Your task to perform on an android device: open app "Life360: Find Family & Friends" (install if not already installed) and go to login screen Image 0: 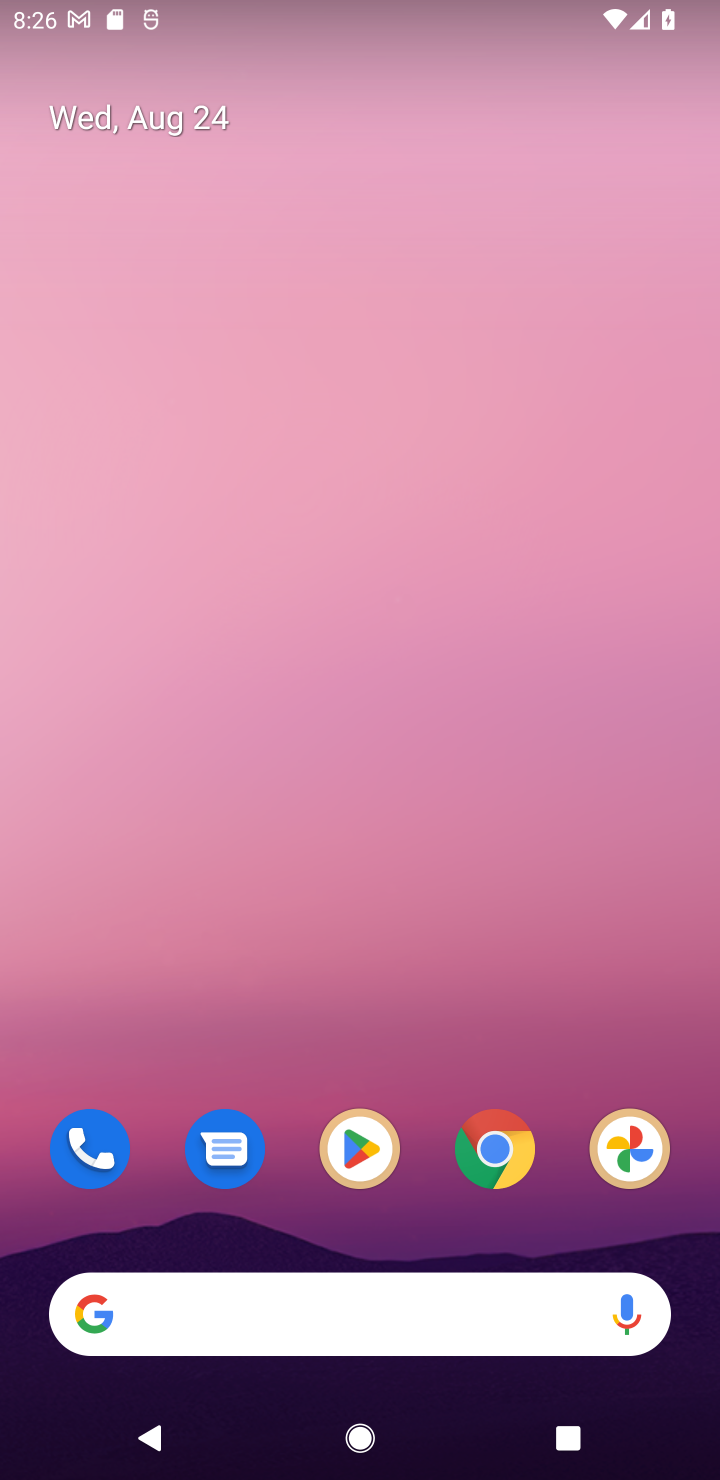
Step 0: click (346, 1121)
Your task to perform on an android device: open app "Life360: Find Family & Friends" (install if not already installed) and go to login screen Image 1: 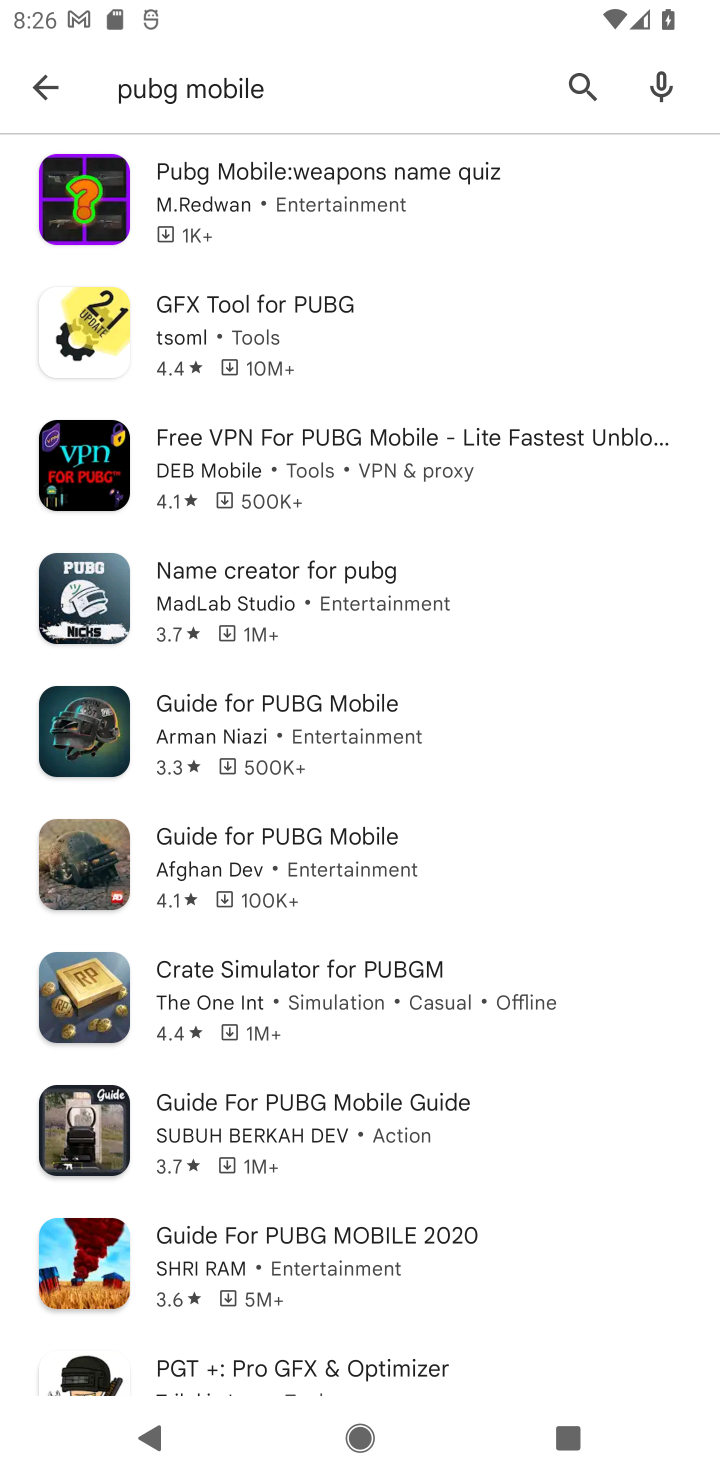
Step 1: click (578, 76)
Your task to perform on an android device: open app "Life360: Find Family & Friends" (install if not already installed) and go to login screen Image 2: 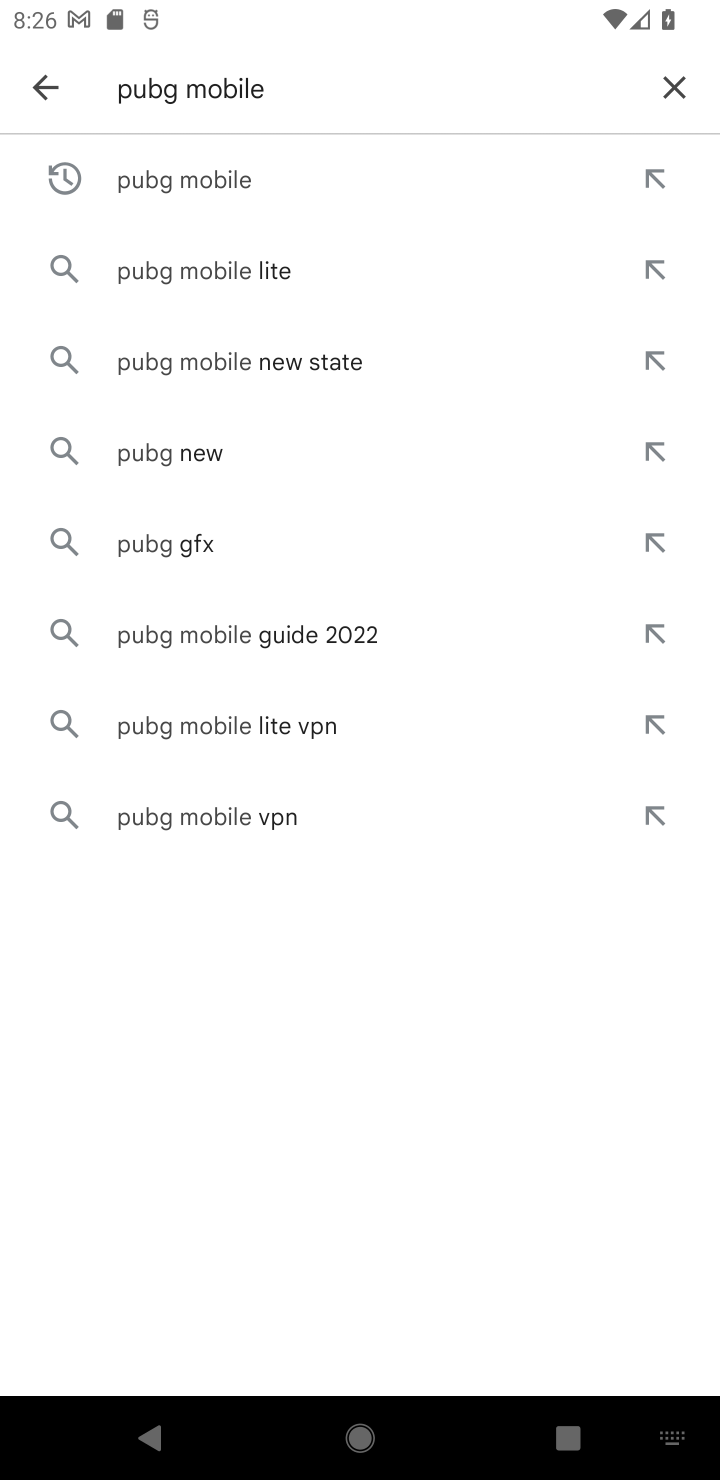
Step 2: click (666, 87)
Your task to perform on an android device: open app "Life360: Find Family & Friends" (install if not already installed) and go to login screen Image 3: 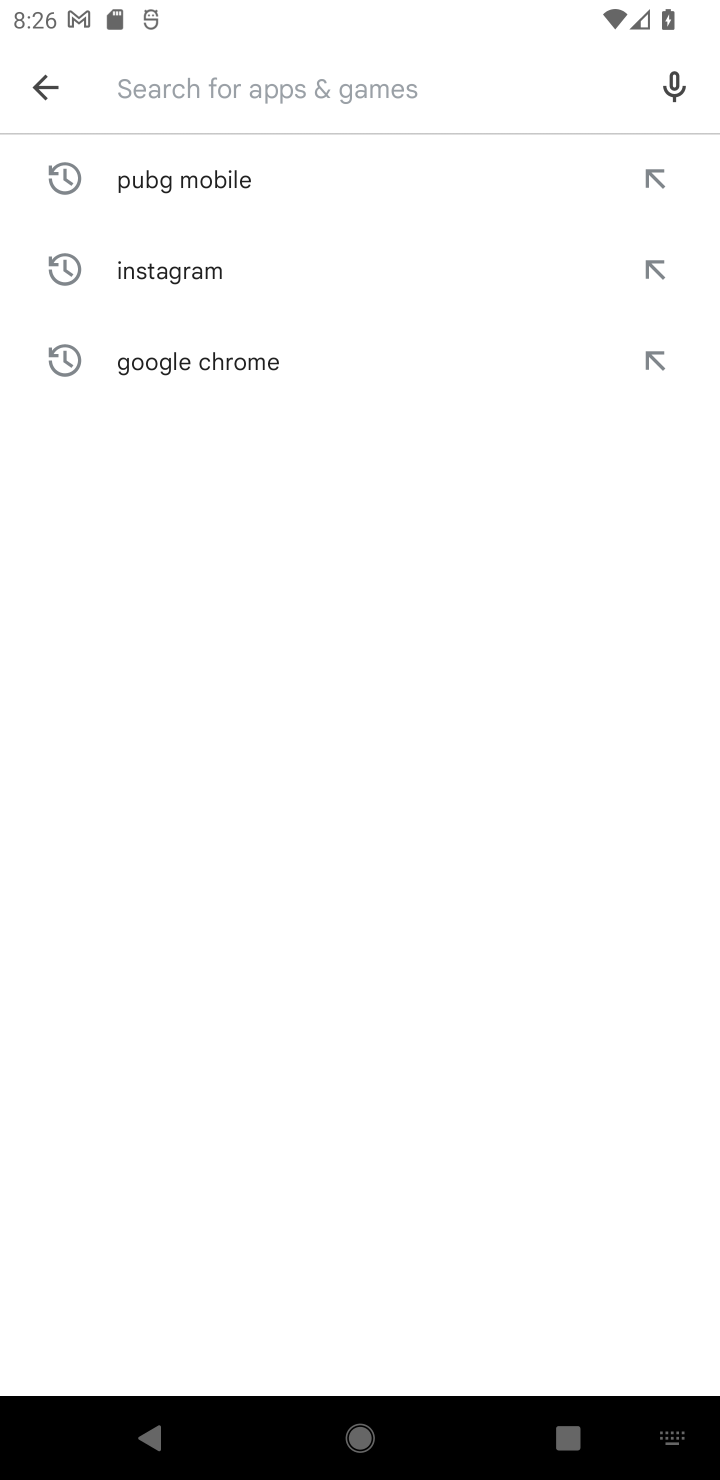
Step 3: type "Life360: Find Family & Friends"
Your task to perform on an android device: open app "Life360: Find Family & Friends" (install if not already installed) and go to login screen Image 4: 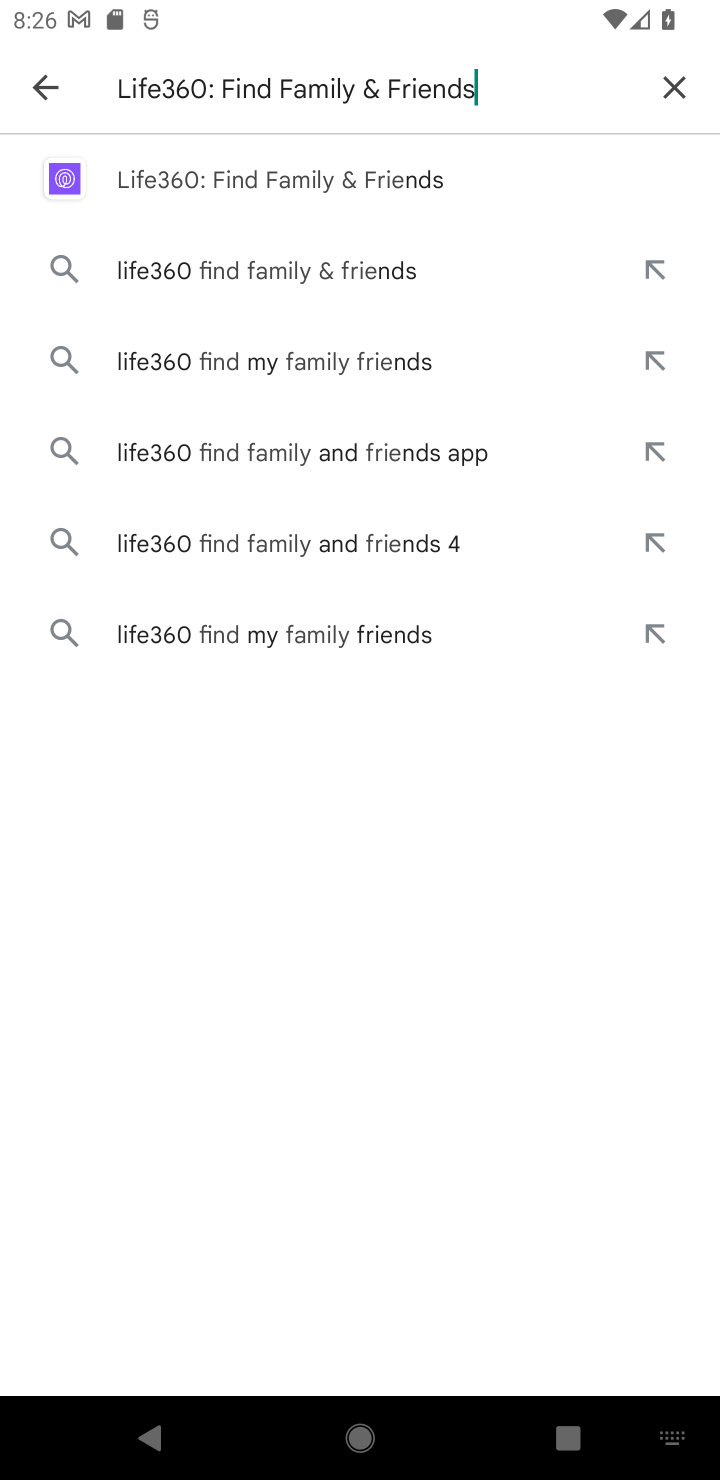
Step 4: type ""
Your task to perform on an android device: open app "Life360: Find Family & Friends" (install if not already installed) and go to login screen Image 5: 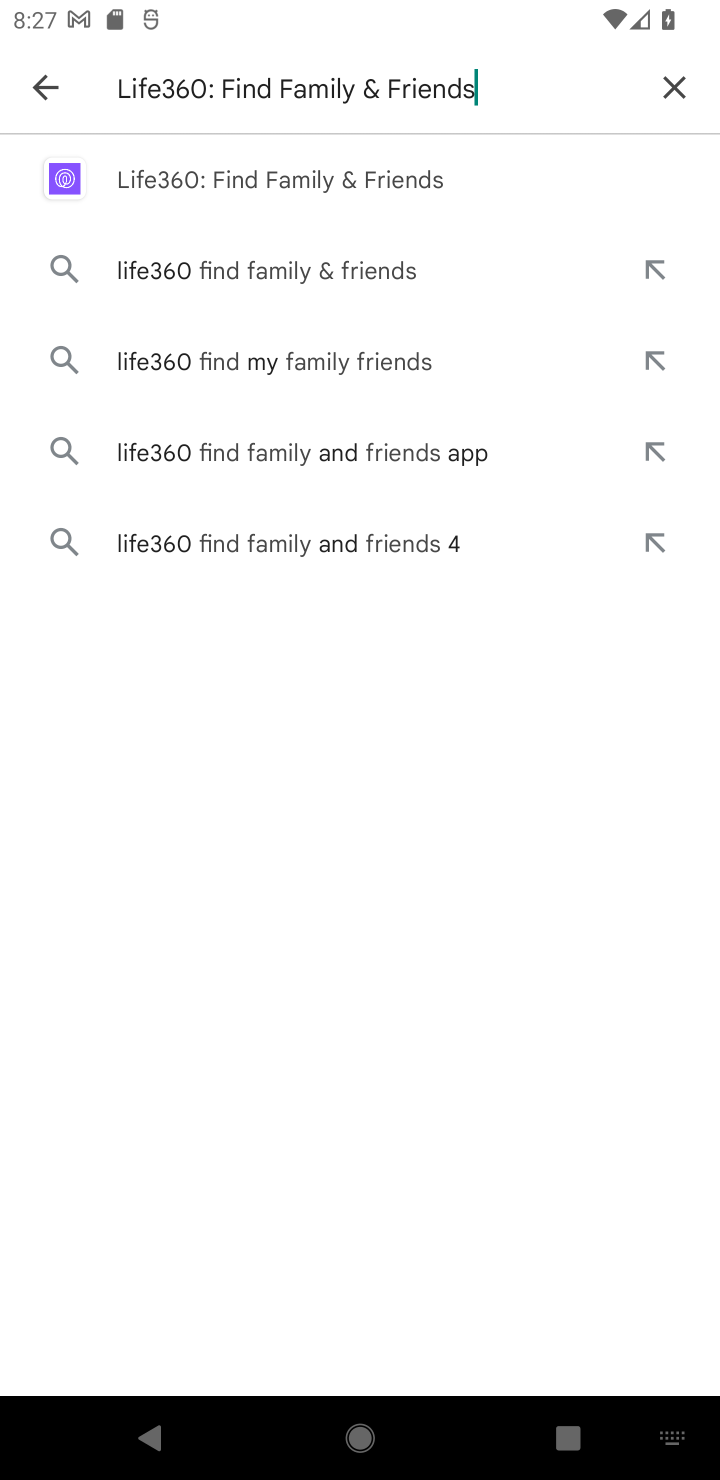
Step 5: type "Life360: Find Family & Friends"
Your task to perform on an android device: open app "Life360: Find Family & Friends" (install if not already installed) and go to login screen Image 6: 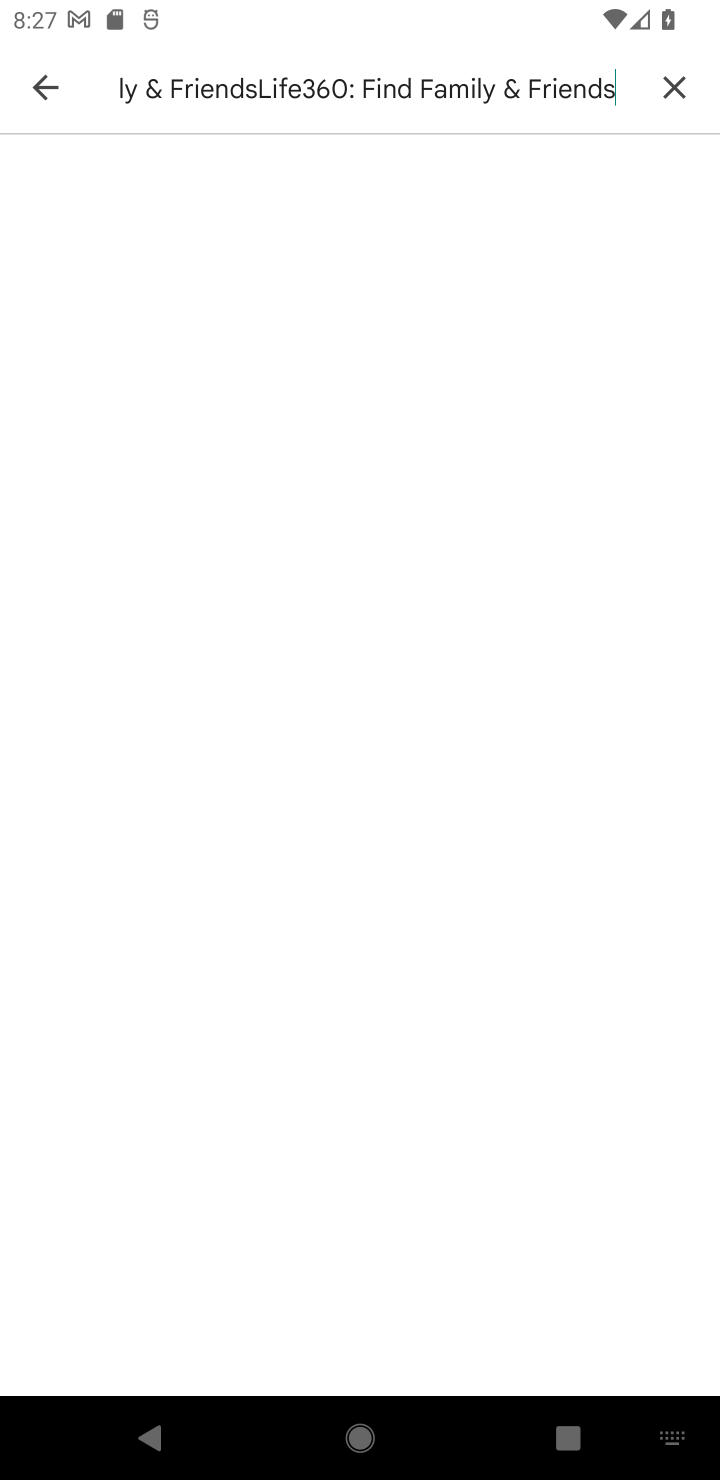
Step 6: click (284, 168)
Your task to perform on an android device: open app "Life360: Find Family & Friends" (install if not already installed) and go to login screen Image 7: 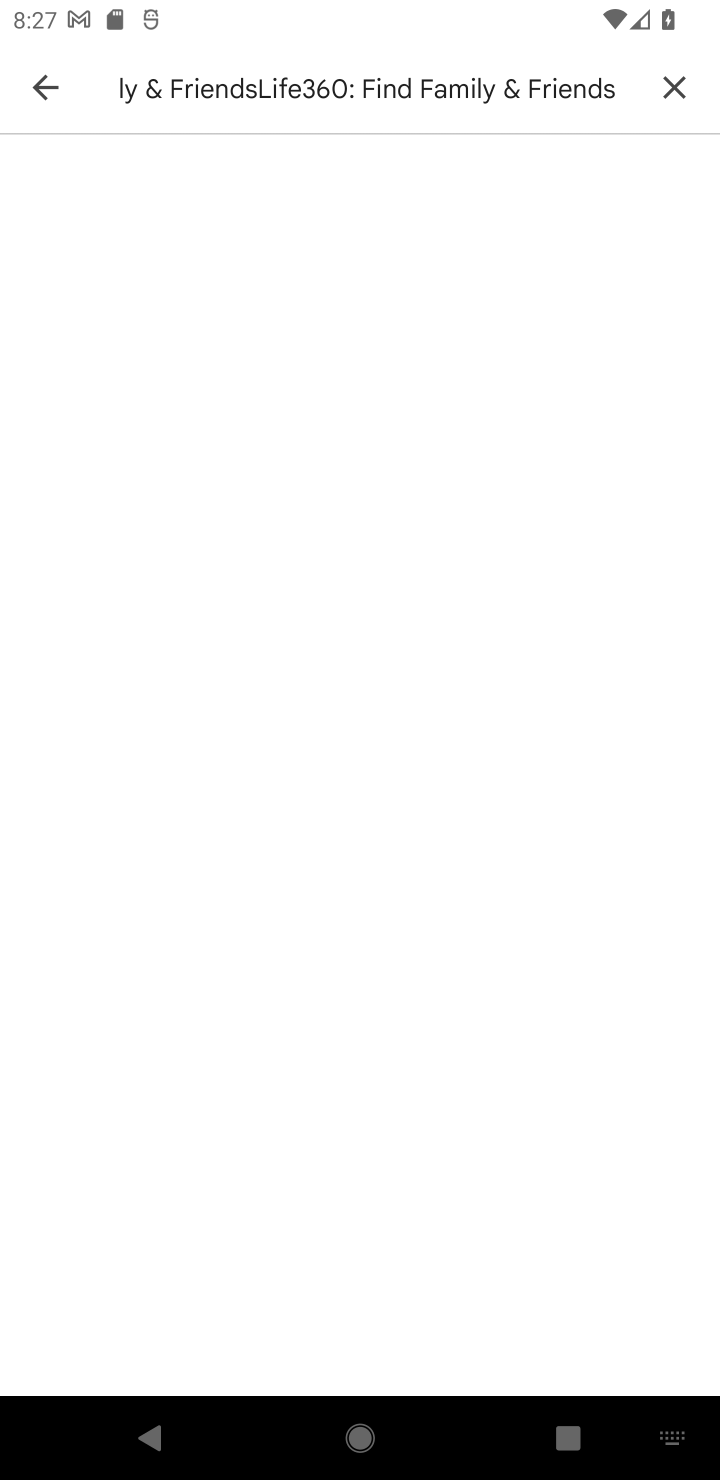
Step 7: click (657, 75)
Your task to perform on an android device: open app "Life360: Find Family & Friends" (install if not already installed) and go to login screen Image 8: 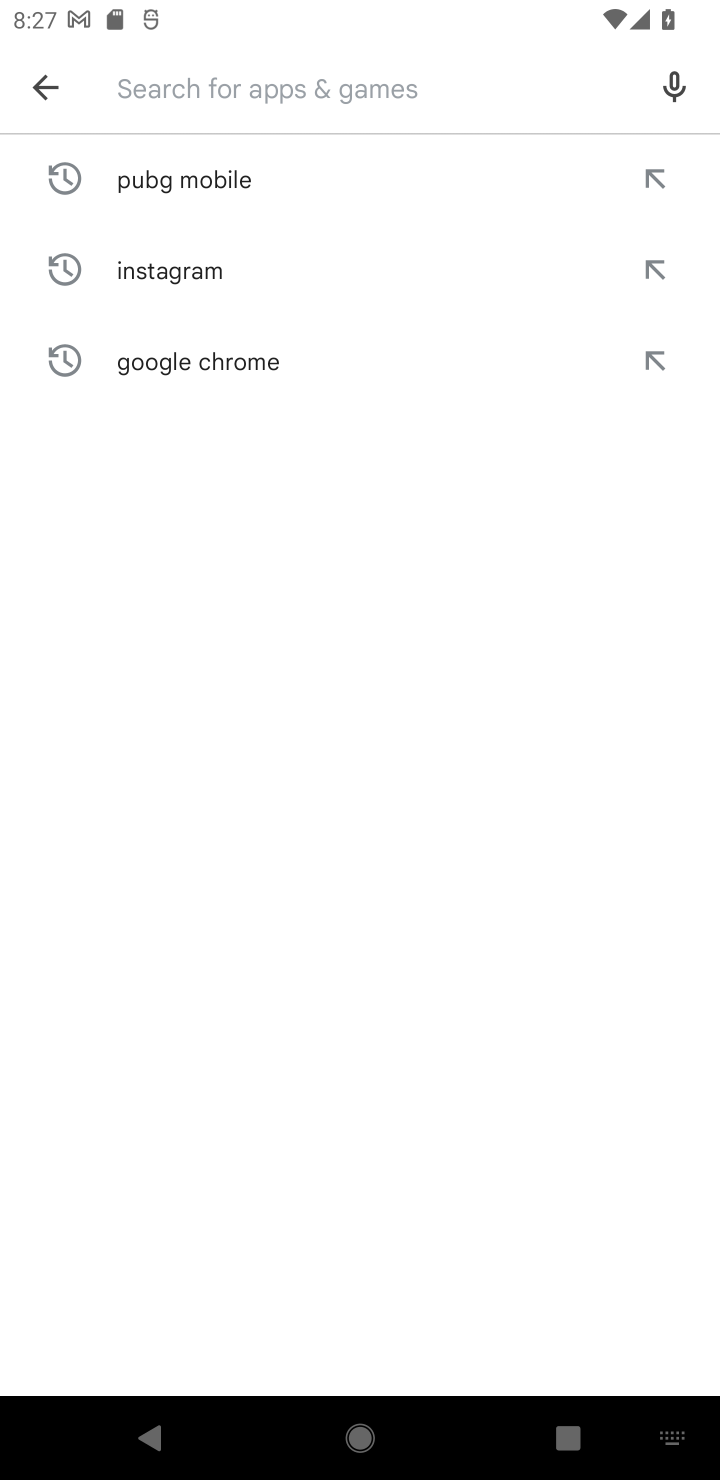
Step 8: type "Life360"
Your task to perform on an android device: open app "Life360: Find Family & Friends" (install if not already installed) and go to login screen Image 9: 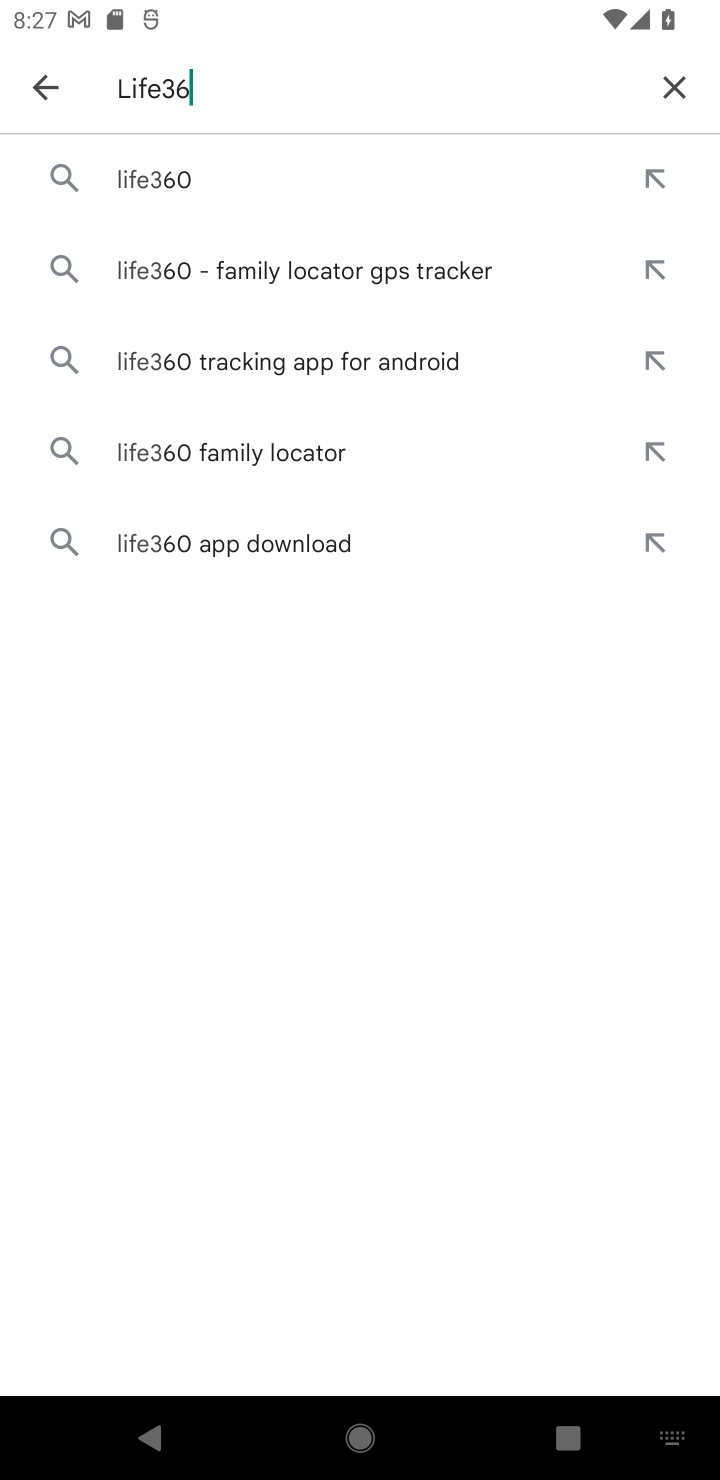
Step 9: type ""
Your task to perform on an android device: open app "Life360: Find Family & Friends" (install if not already installed) and go to login screen Image 10: 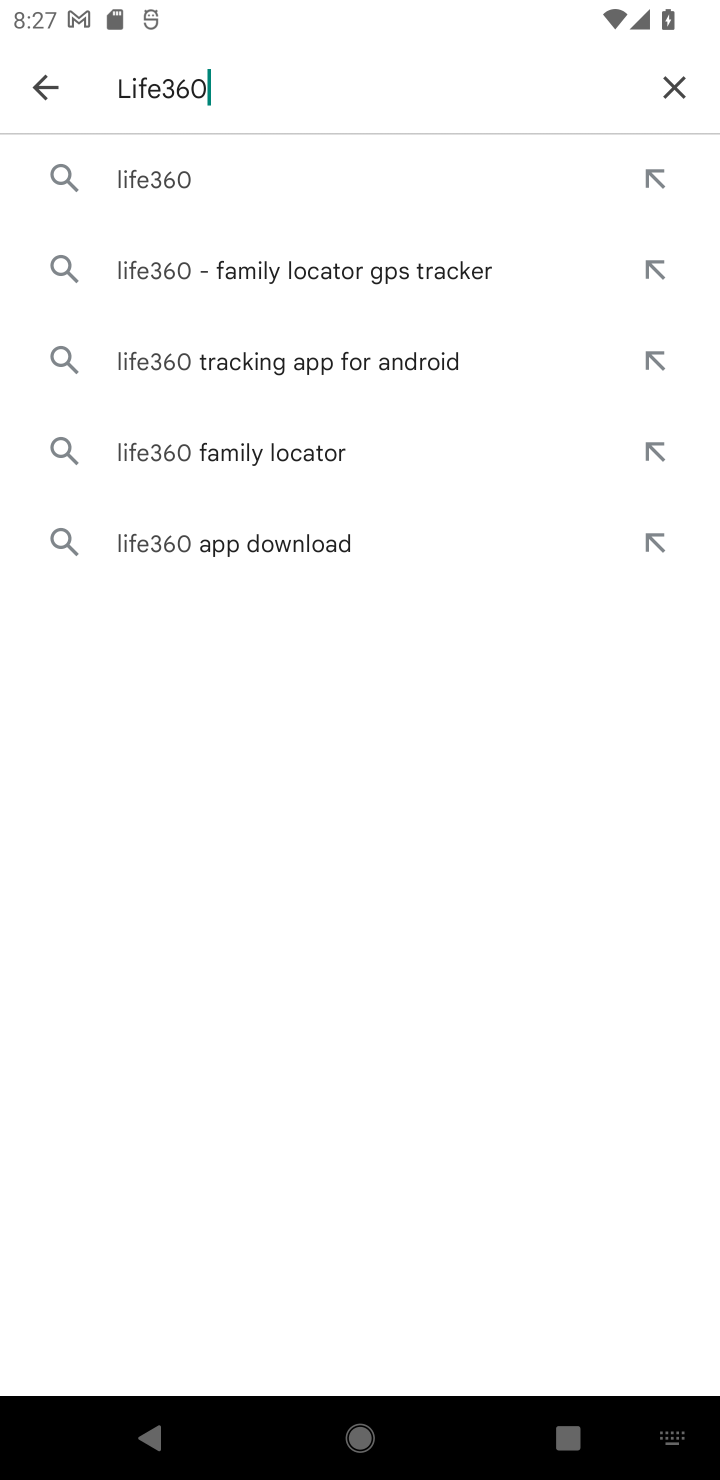
Step 10: click (164, 192)
Your task to perform on an android device: open app "Life360: Find Family & Friends" (install if not already installed) and go to login screen Image 11: 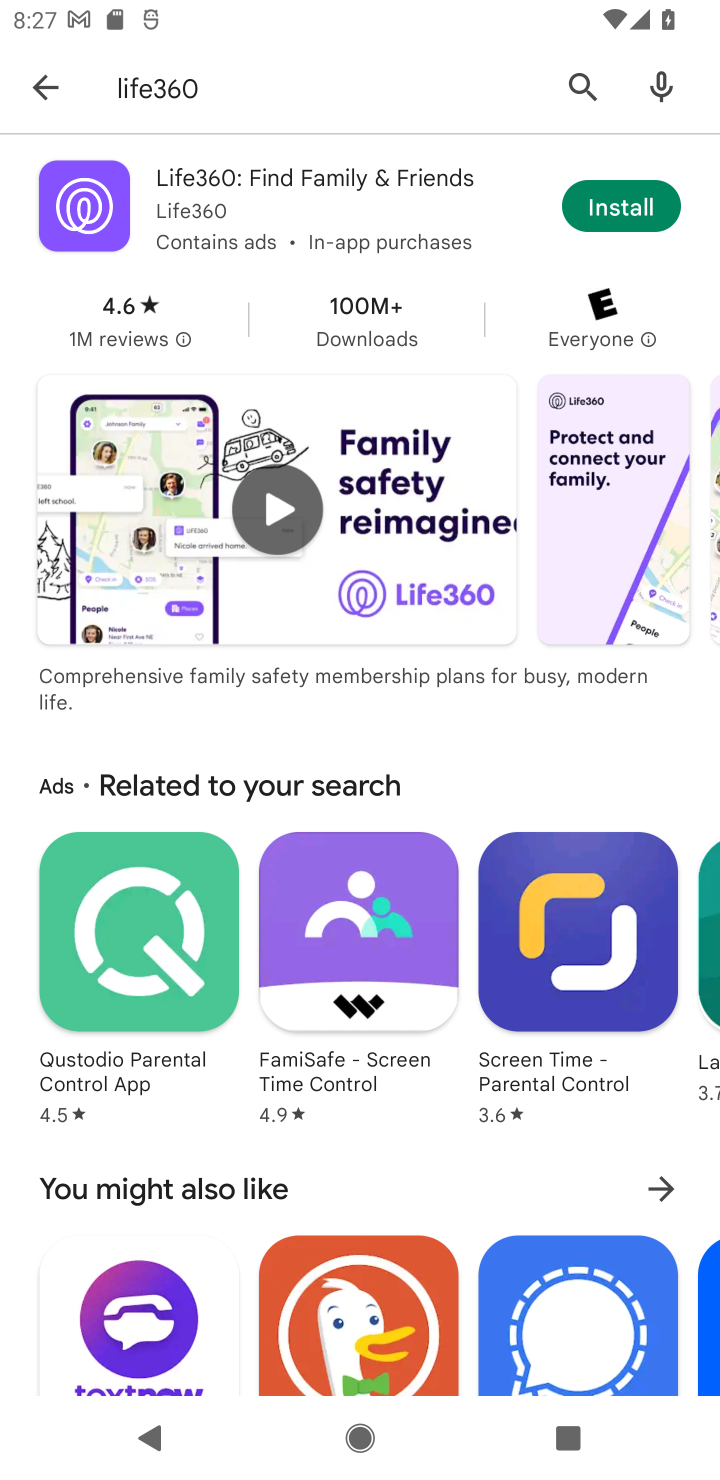
Step 11: click (616, 195)
Your task to perform on an android device: open app "Life360: Find Family & Friends" (install if not already installed) and go to login screen Image 12: 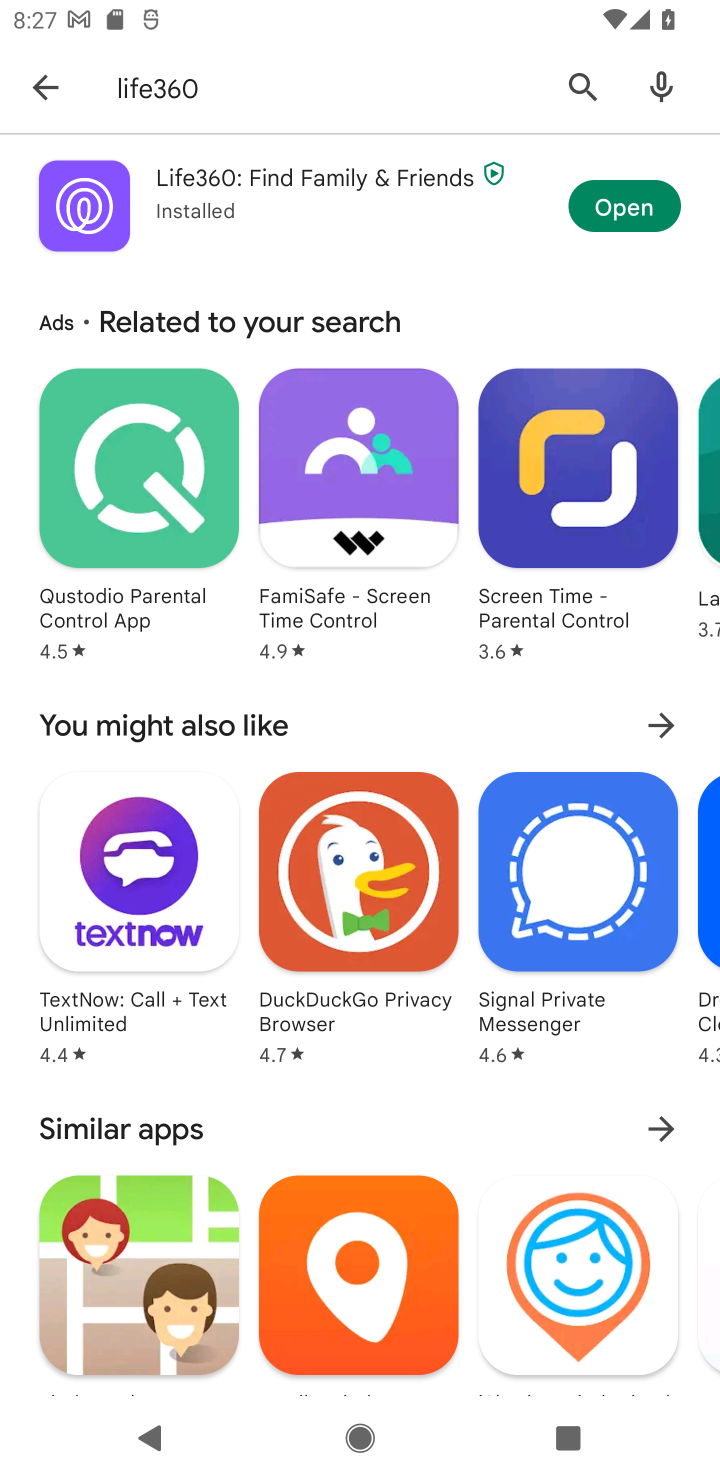
Step 12: click (647, 210)
Your task to perform on an android device: open app "Life360: Find Family & Friends" (install if not already installed) and go to login screen Image 13: 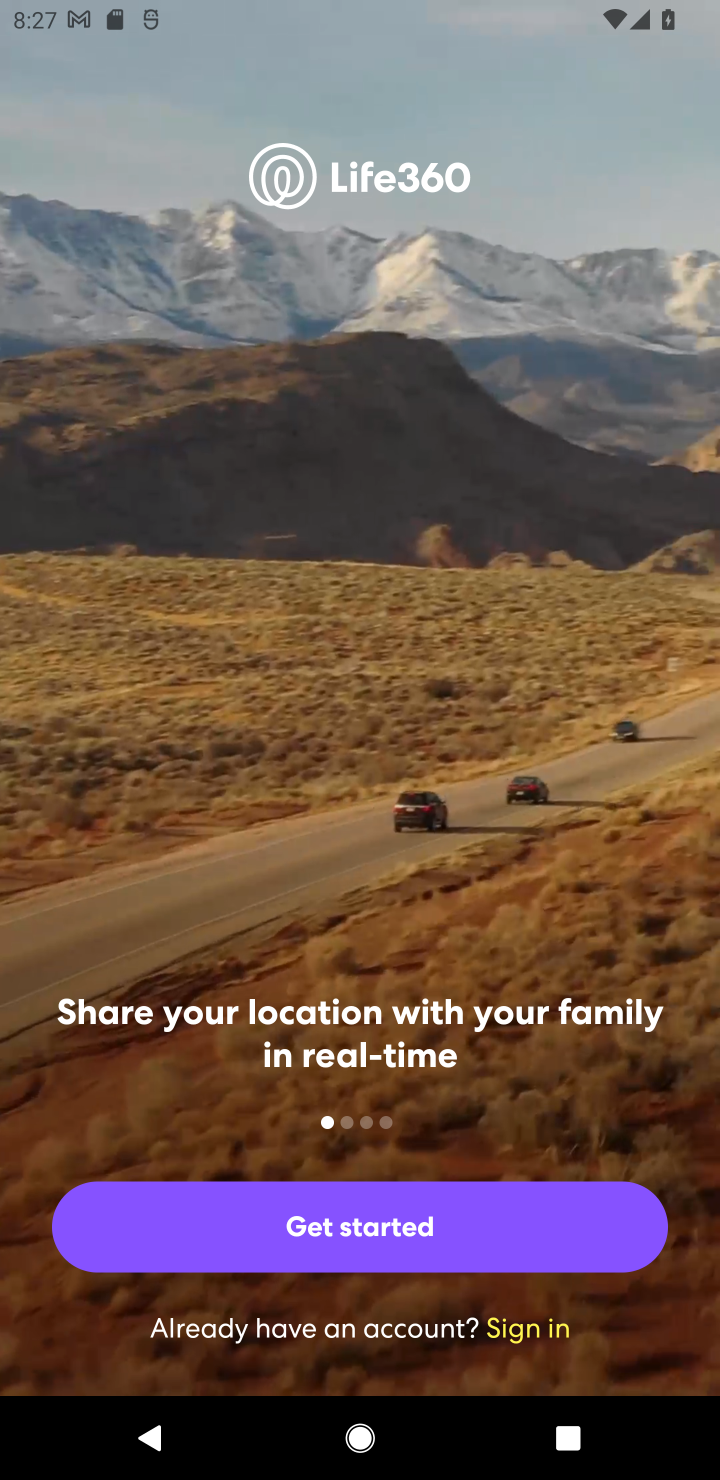
Step 13: task complete